Your task to perform on an android device: Open Chrome and go to settings Image 0: 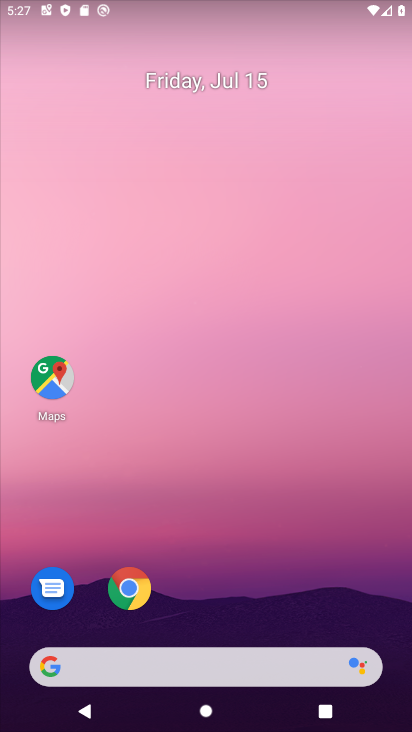
Step 0: drag from (308, 656) to (411, 272)
Your task to perform on an android device: Open Chrome and go to settings Image 1: 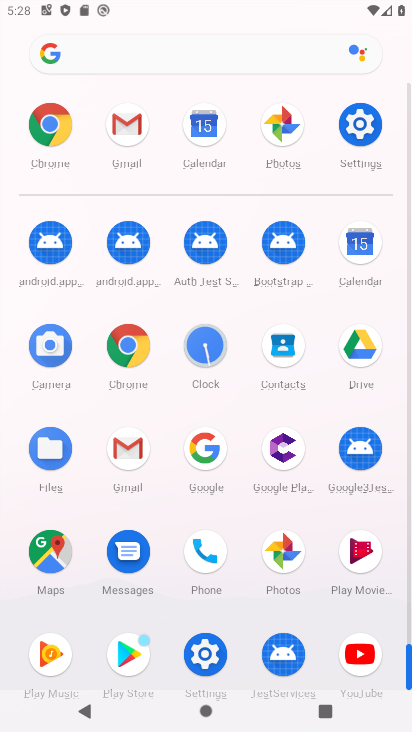
Step 1: click (134, 346)
Your task to perform on an android device: Open Chrome and go to settings Image 2: 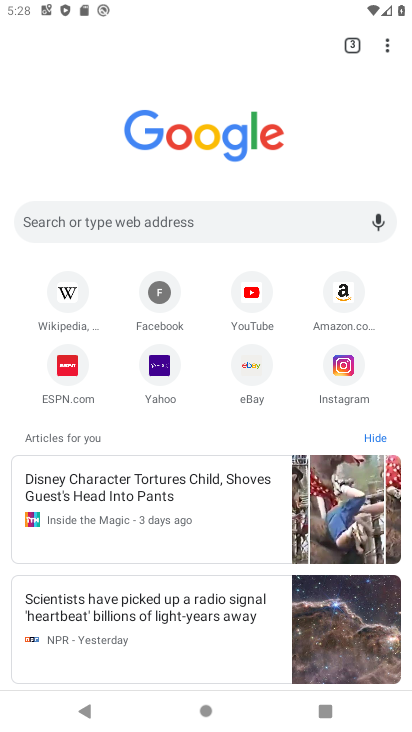
Step 2: click (387, 38)
Your task to perform on an android device: Open Chrome and go to settings Image 3: 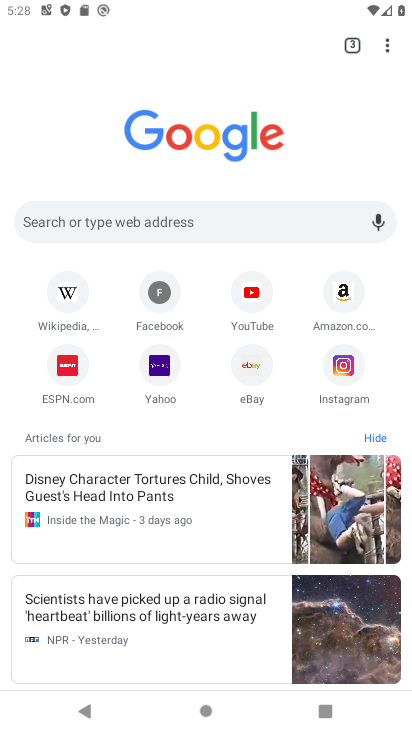
Step 3: task complete